Your task to perform on an android device: toggle translation in the chrome app Image 0: 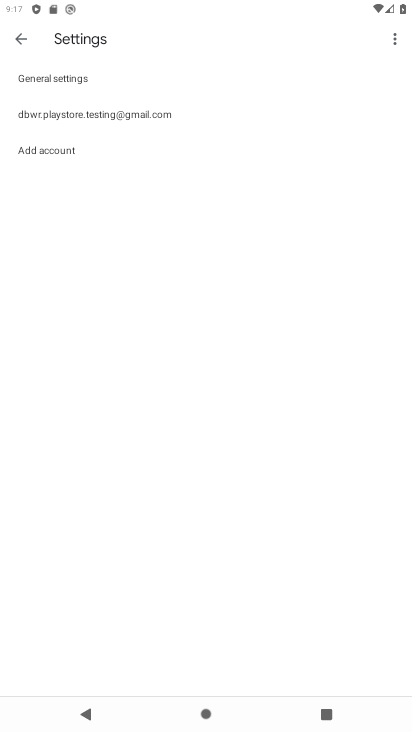
Step 0: press home button
Your task to perform on an android device: toggle translation in the chrome app Image 1: 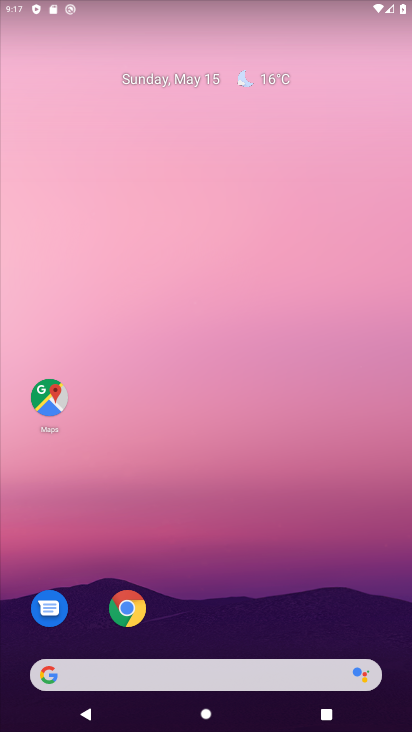
Step 1: click (132, 595)
Your task to perform on an android device: toggle translation in the chrome app Image 2: 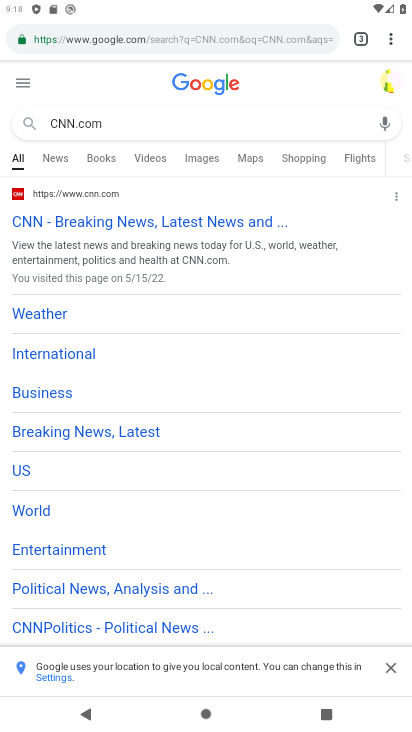
Step 2: click (373, 38)
Your task to perform on an android device: toggle translation in the chrome app Image 3: 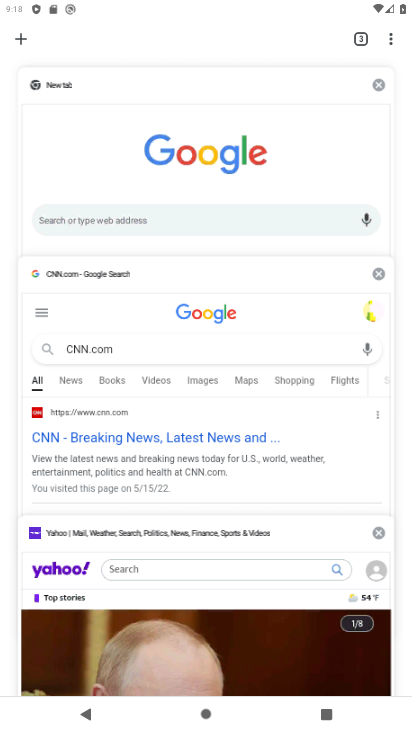
Step 3: click (384, 48)
Your task to perform on an android device: toggle translation in the chrome app Image 4: 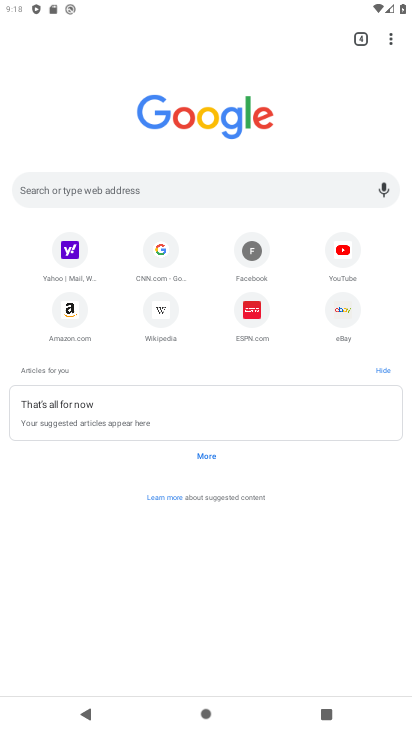
Step 4: click (392, 41)
Your task to perform on an android device: toggle translation in the chrome app Image 5: 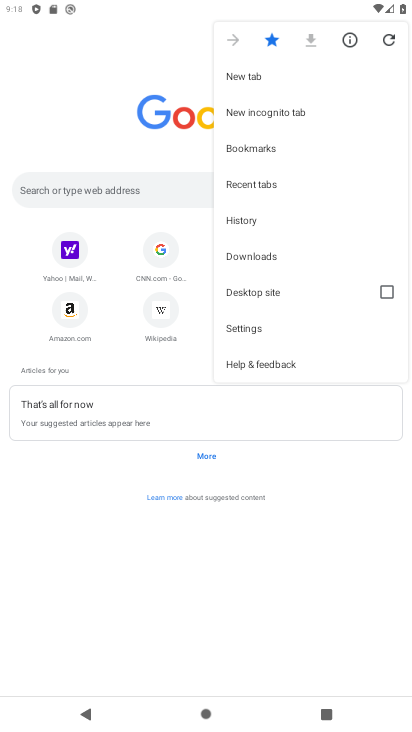
Step 5: click (252, 329)
Your task to perform on an android device: toggle translation in the chrome app Image 6: 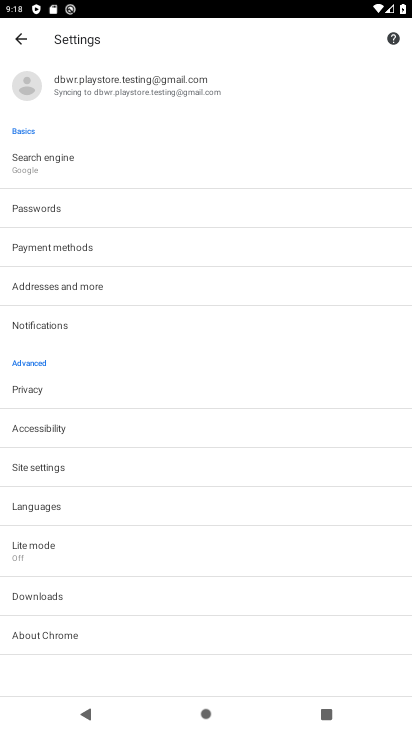
Step 6: drag from (152, 615) to (131, 205)
Your task to perform on an android device: toggle translation in the chrome app Image 7: 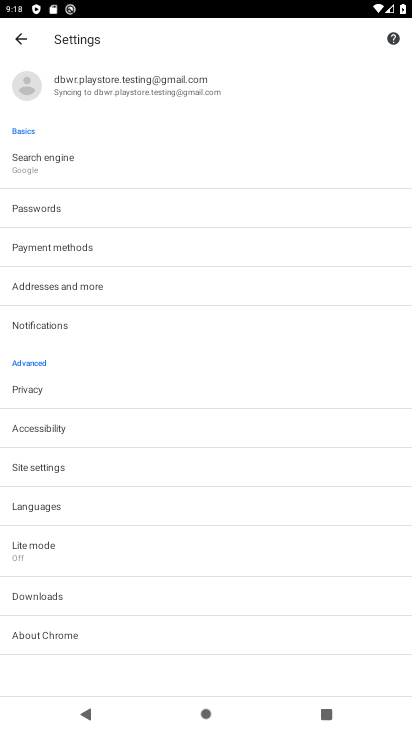
Step 7: click (52, 509)
Your task to perform on an android device: toggle translation in the chrome app Image 8: 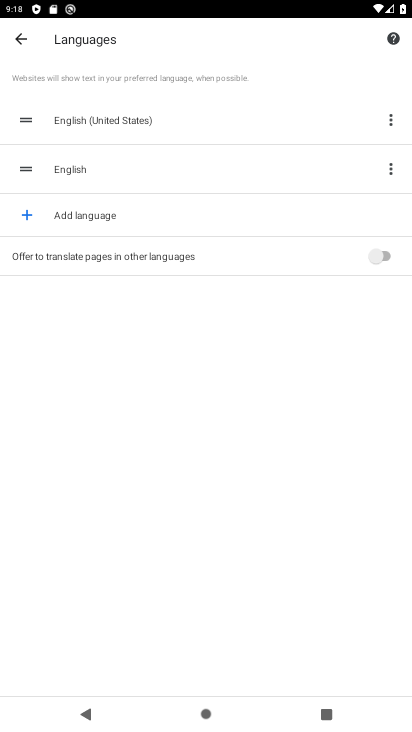
Step 8: click (383, 255)
Your task to perform on an android device: toggle translation in the chrome app Image 9: 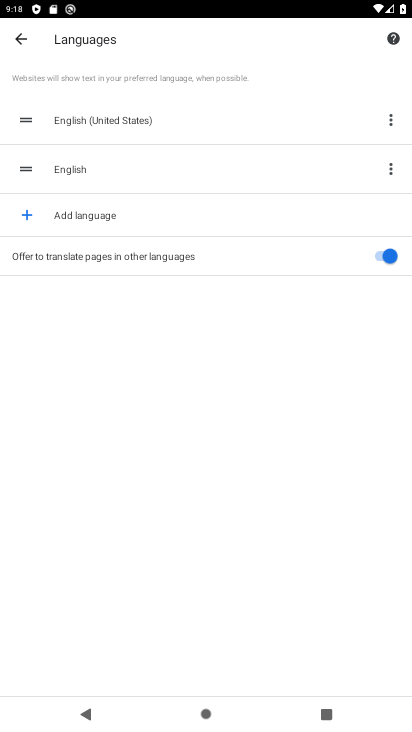
Step 9: task complete